Your task to perform on an android device: Toggle the flashlight Image 0: 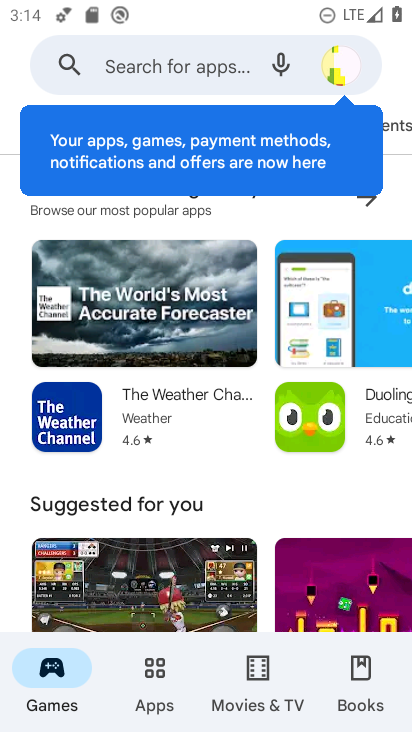
Step 0: drag from (245, 5) to (248, 282)
Your task to perform on an android device: Toggle the flashlight Image 1: 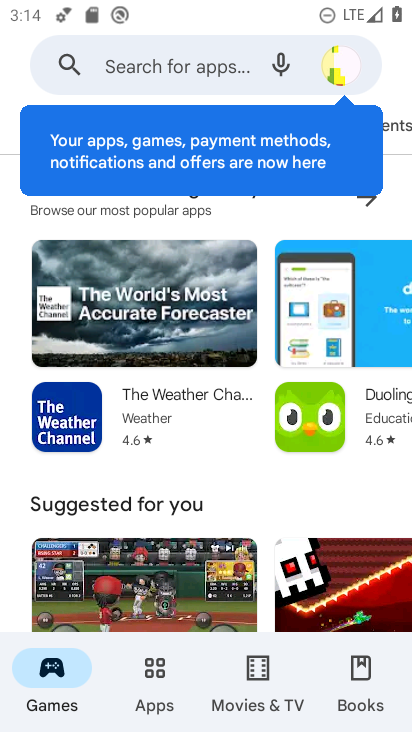
Step 1: drag from (203, 3) to (131, 667)
Your task to perform on an android device: Toggle the flashlight Image 2: 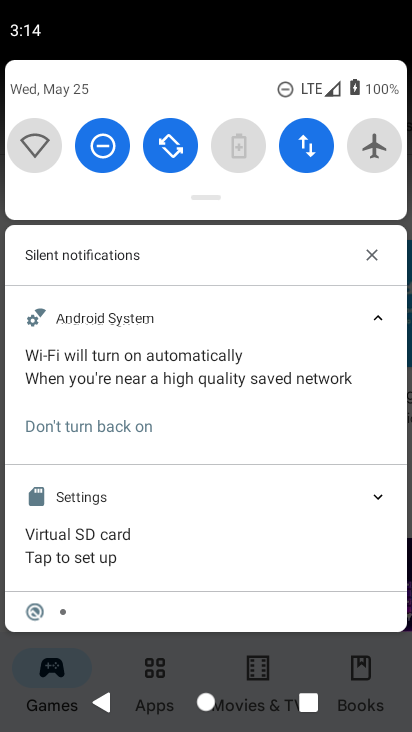
Step 2: drag from (206, 171) to (183, 674)
Your task to perform on an android device: Toggle the flashlight Image 3: 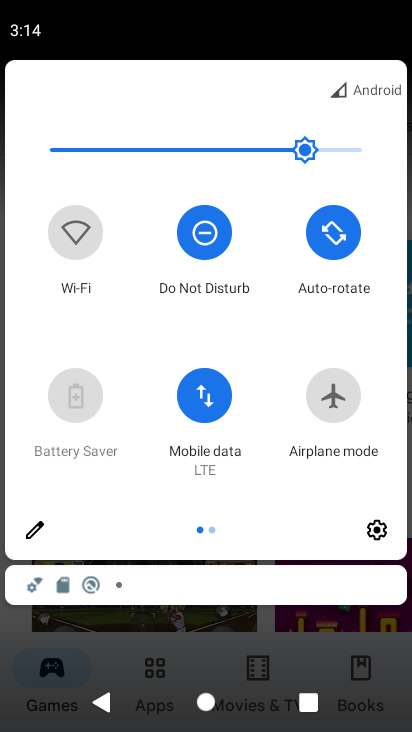
Step 3: click (37, 524)
Your task to perform on an android device: Toggle the flashlight Image 4: 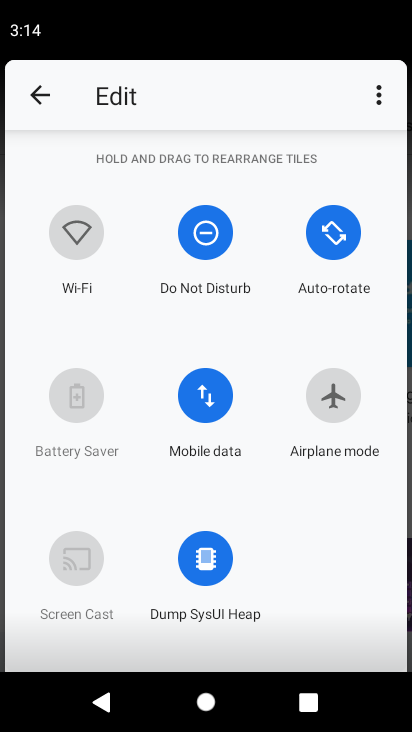
Step 4: task complete